Your task to perform on an android device: Open Google Chrome Image 0: 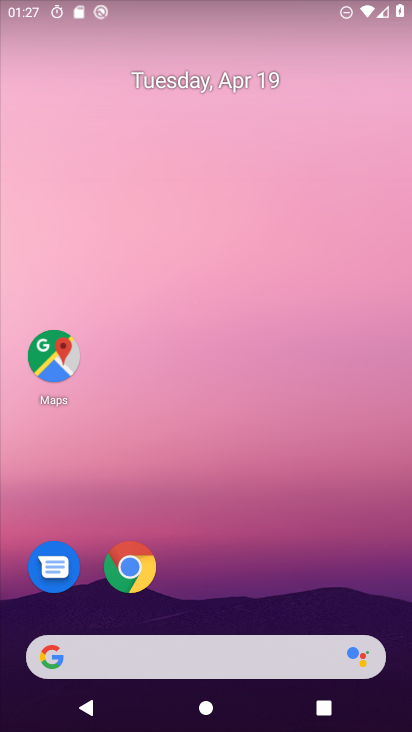
Step 0: click (232, 122)
Your task to perform on an android device: Open Google Chrome Image 1: 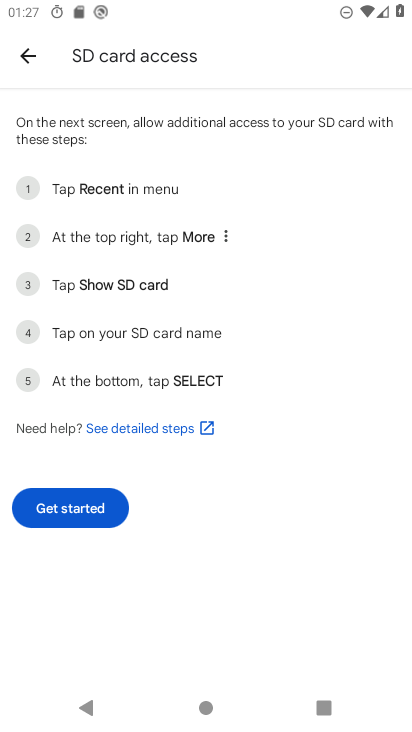
Step 1: press home button
Your task to perform on an android device: Open Google Chrome Image 2: 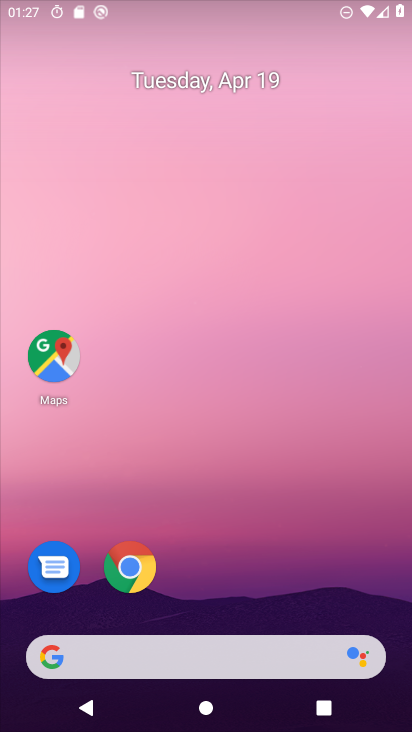
Step 2: drag from (298, 594) to (232, 155)
Your task to perform on an android device: Open Google Chrome Image 3: 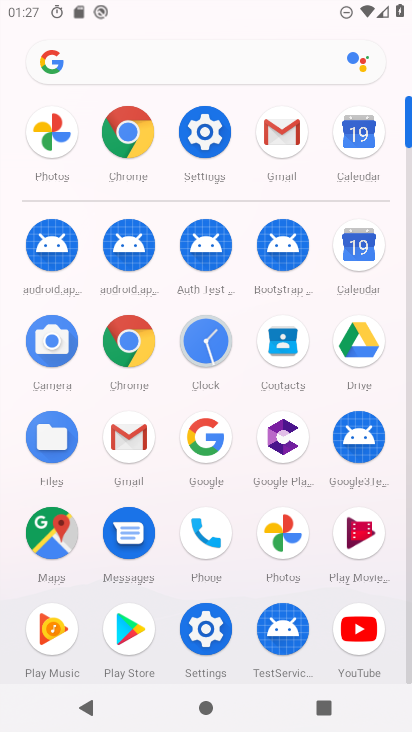
Step 3: click (143, 125)
Your task to perform on an android device: Open Google Chrome Image 4: 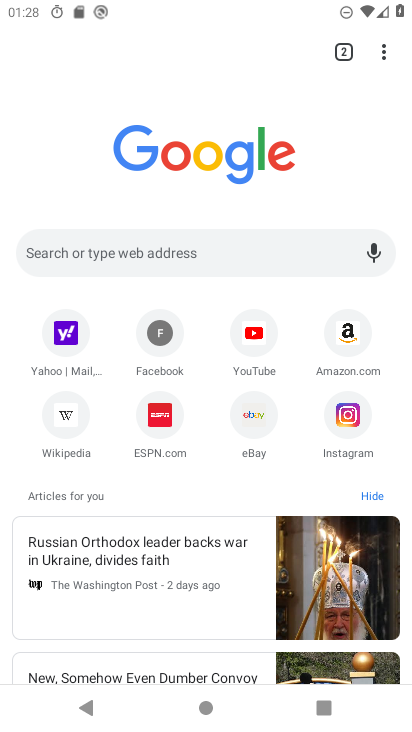
Step 4: task complete